Your task to perform on an android device: turn on notifications settings in the gmail app Image 0: 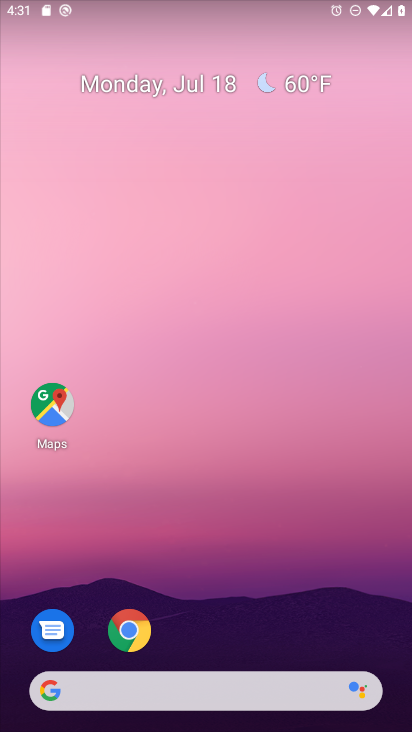
Step 0: drag from (230, 568) to (213, 30)
Your task to perform on an android device: turn on notifications settings in the gmail app Image 1: 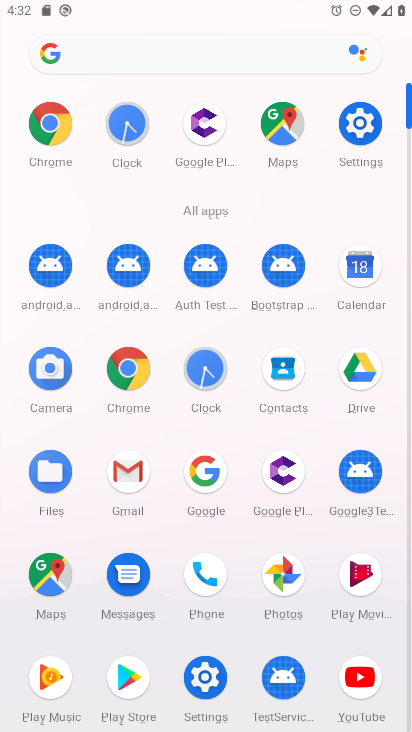
Step 1: click (135, 477)
Your task to perform on an android device: turn on notifications settings in the gmail app Image 2: 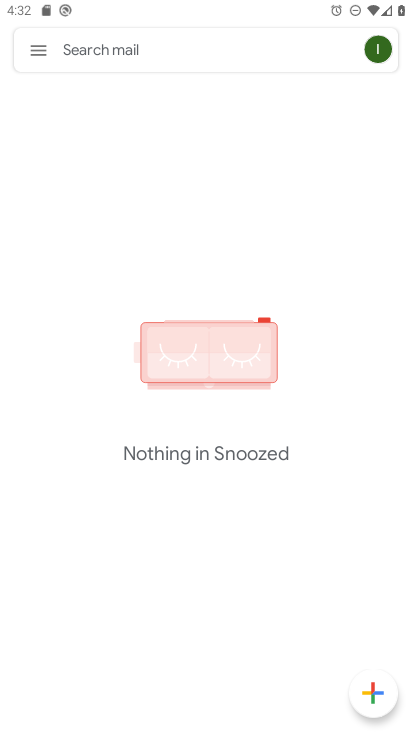
Step 2: click (33, 48)
Your task to perform on an android device: turn on notifications settings in the gmail app Image 3: 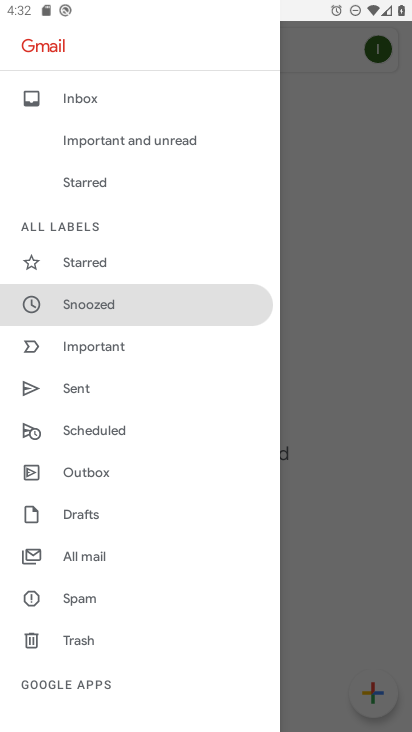
Step 3: drag from (152, 649) to (177, 124)
Your task to perform on an android device: turn on notifications settings in the gmail app Image 4: 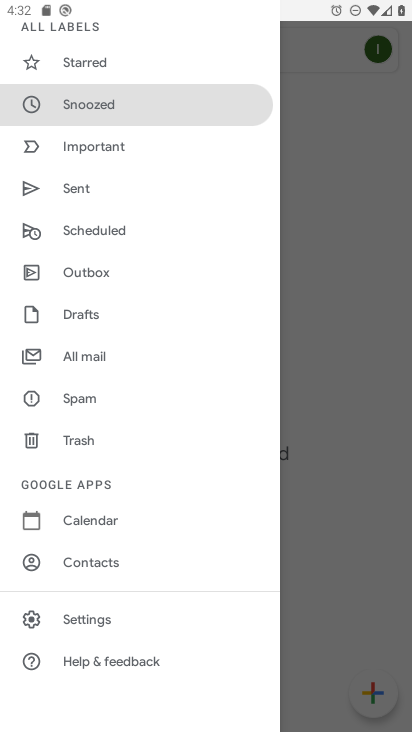
Step 4: click (82, 622)
Your task to perform on an android device: turn on notifications settings in the gmail app Image 5: 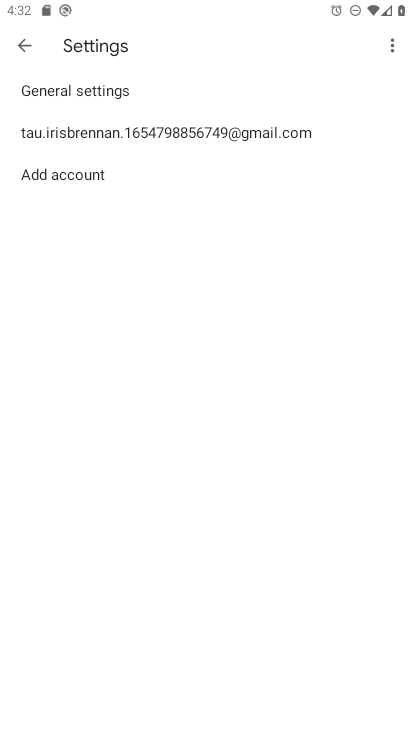
Step 5: click (62, 89)
Your task to perform on an android device: turn on notifications settings in the gmail app Image 6: 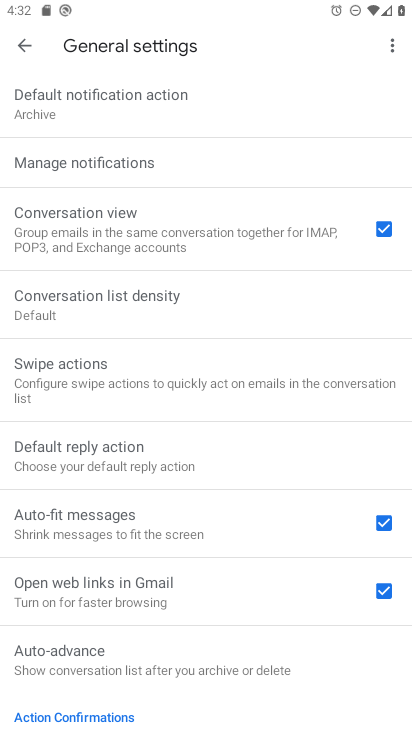
Step 6: click (90, 161)
Your task to perform on an android device: turn on notifications settings in the gmail app Image 7: 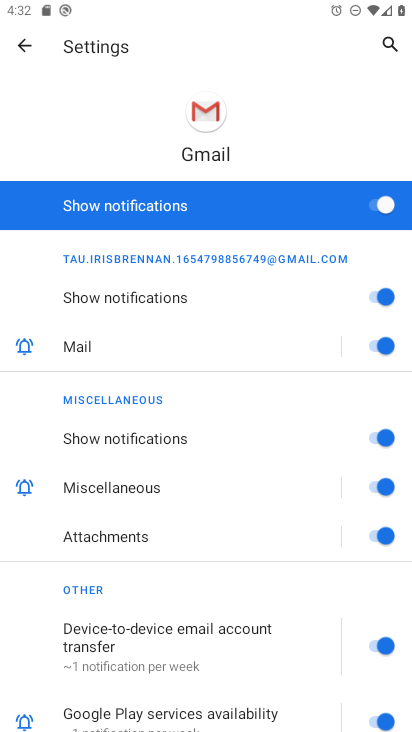
Step 7: task complete